Your task to perform on an android device: toggle location history Image 0: 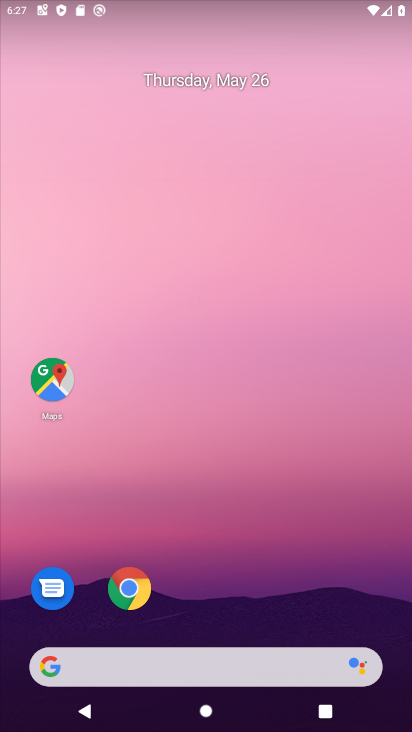
Step 0: drag from (388, 618) to (206, 18)
Your task to perform on an android device: toggle location history Image 1: 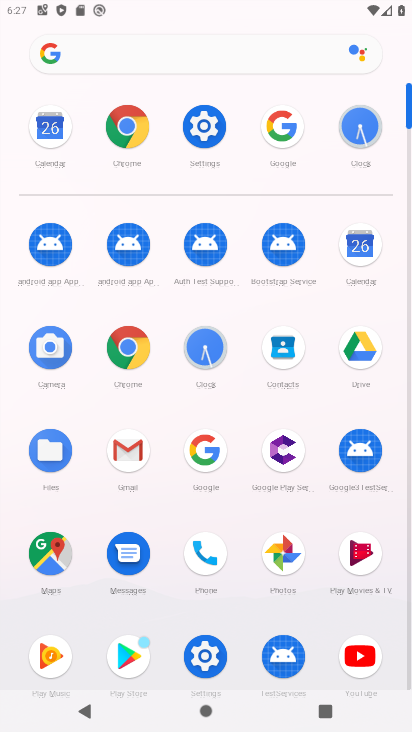
Step 1: click (213, 128)
Your task to perform on an android device: toggle location history Image 2: 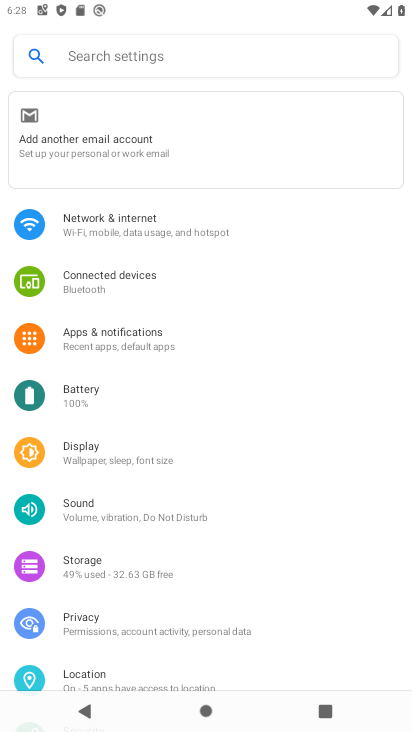
Step 2: click (85, 680)
Your task to perform on an android device: toggle location history Image 3: 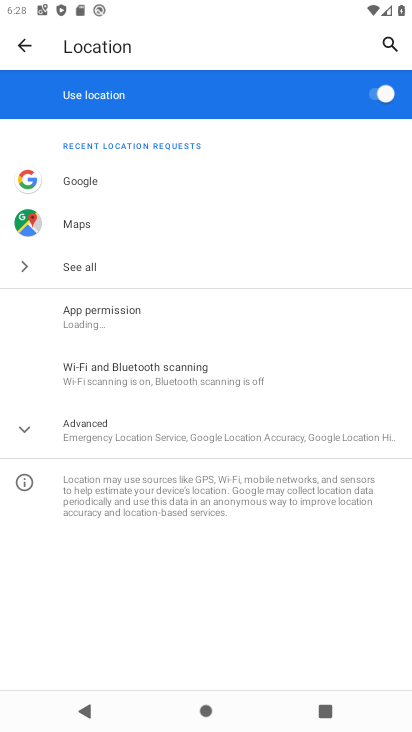
Step 3: click (138, 432)
Your task to perform on an android device: toggle location history Image 4: 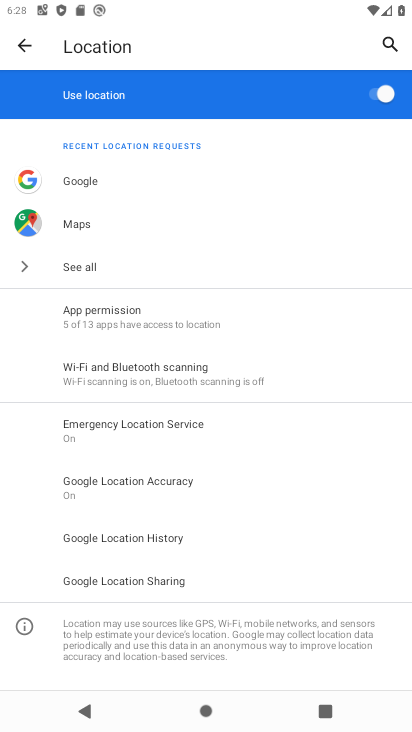
Step 4: click (145, 528)
Your task to perform on an android device: toggle location history Image 5: 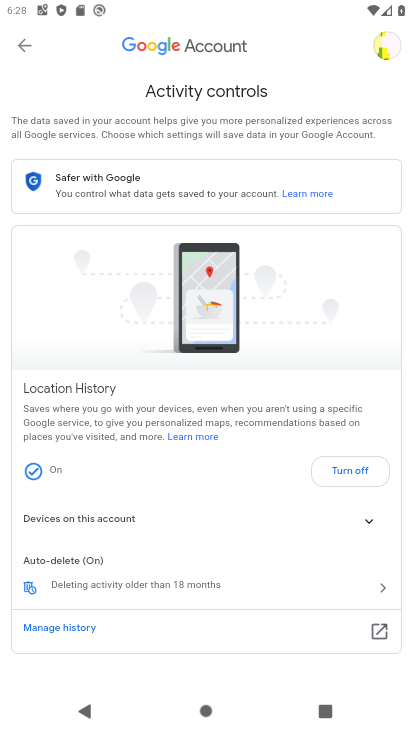
Step 5: click (361, 472)
Your task to perform on an android device: toggle location history Image 6: 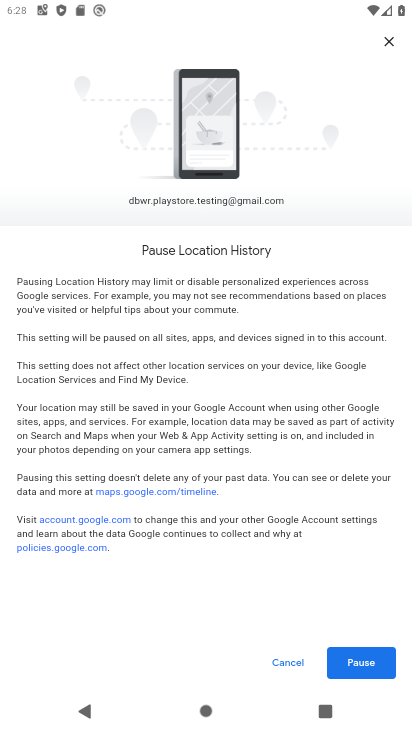
Step 6: task complete